Your task to perform on an android device: change keyboard looks Image 0: 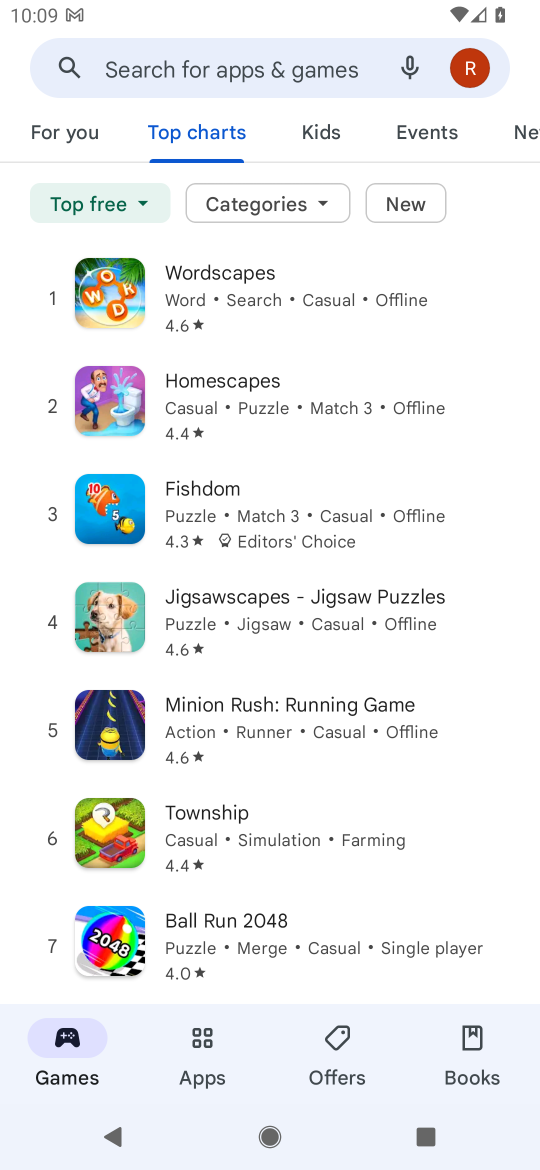
Step 0: press home button
Your task to perform on an android device: change keyboard looks Image 1: 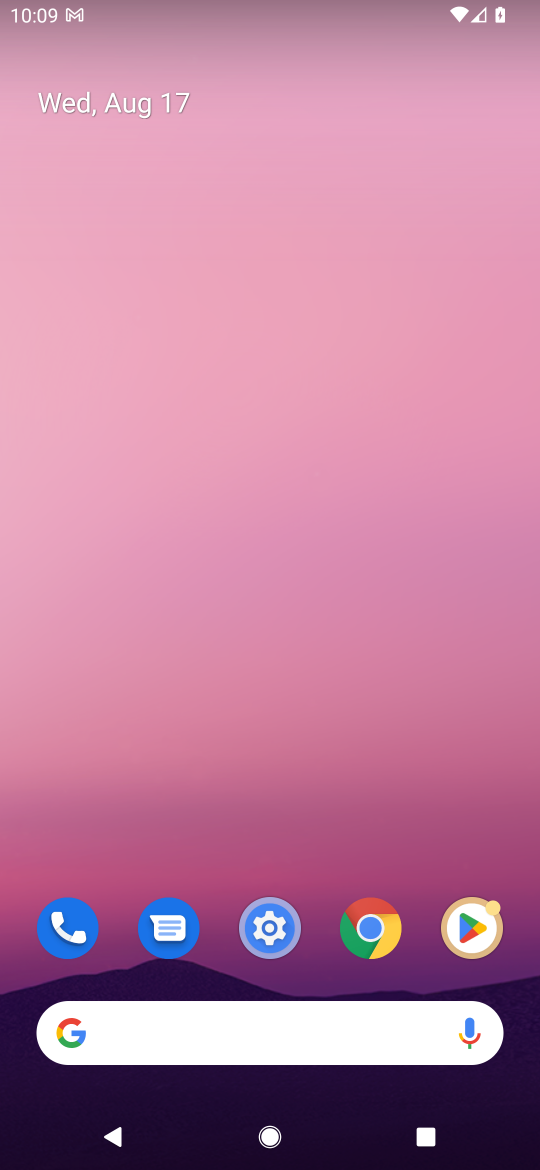
Step 1: drag from (494, 813) to (427, 553)
Your task to perform on an android device: change keyboard looks Image 2: 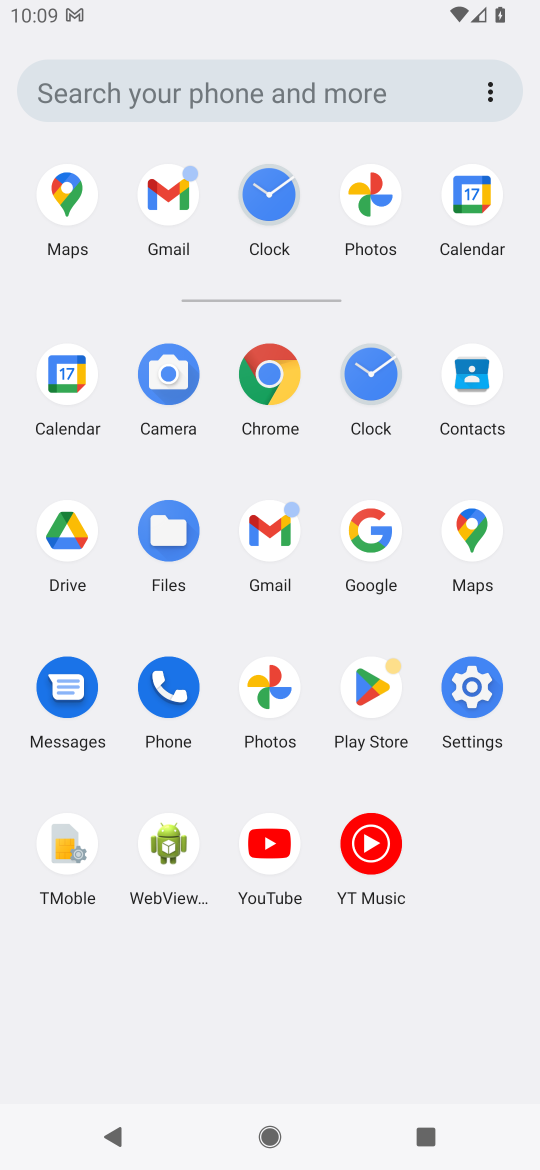
Step 2: click (488, 699)
Your task to perform on an android device: change keyboard looks Image 3: 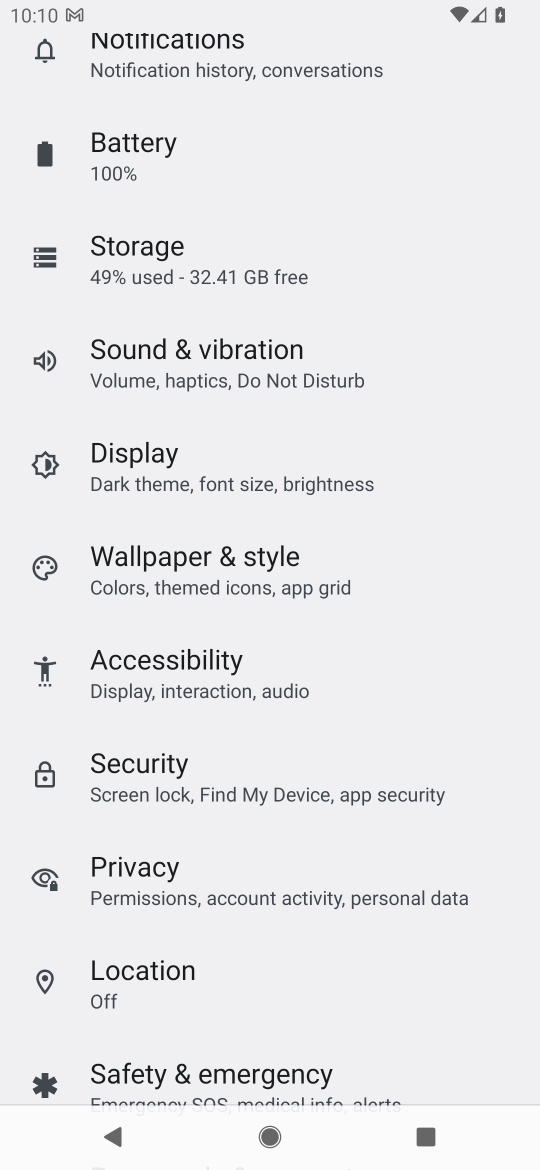
Step 3: drag from (432, 844) to (291, 273)
Your task to perform on an android device: change keyboard looks Image 4: 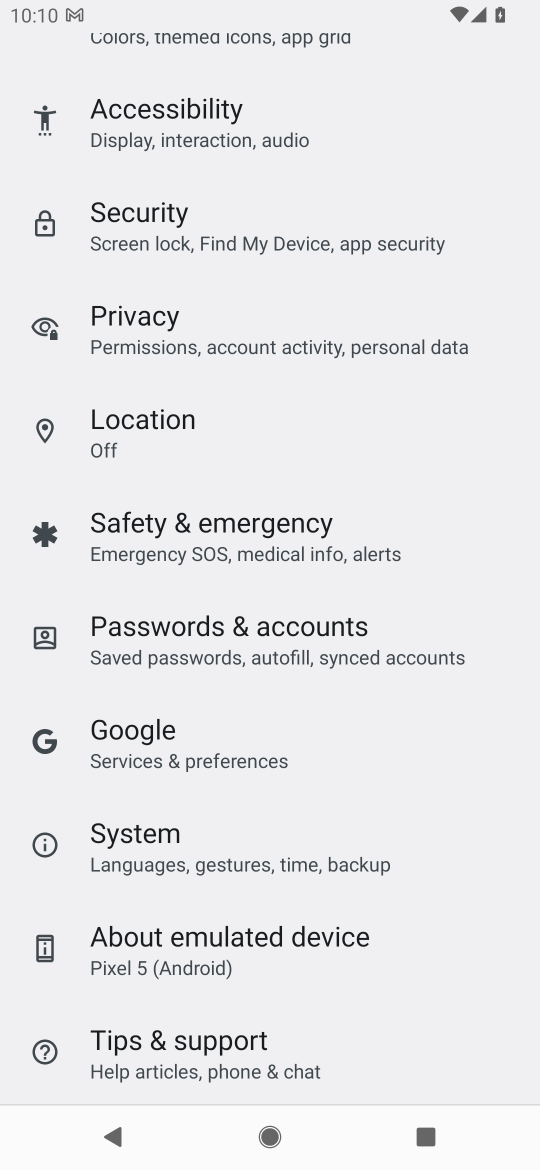
Step 4: drag from (328, 955) to (267, 529)
Your task to perform on an android device: change keyboard looks Image 5: 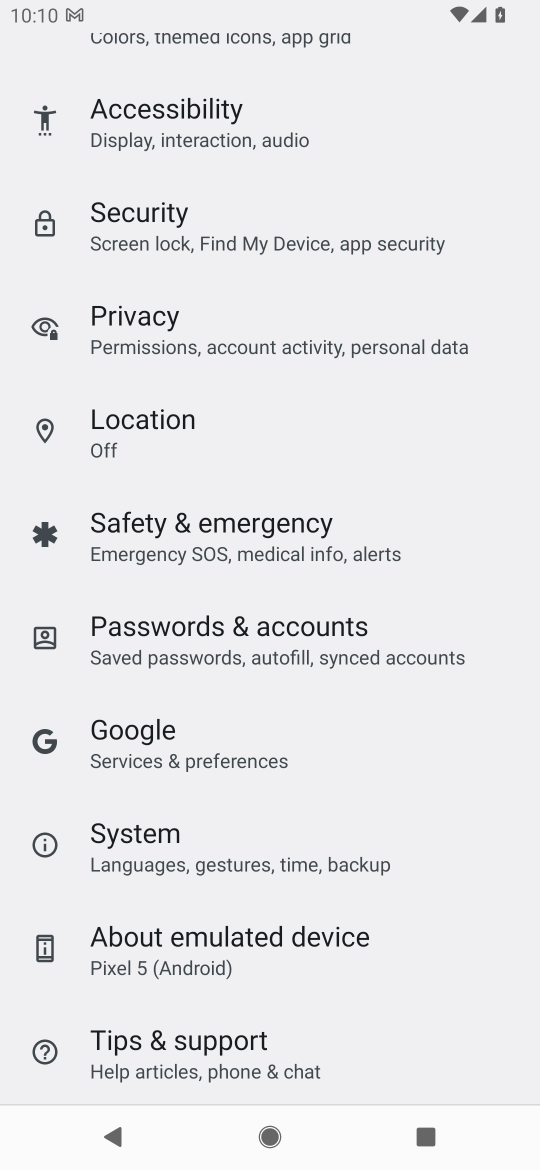
Step 5: click (199, 940)
Your task to perform on an android device: change keyboard looks Image 6: 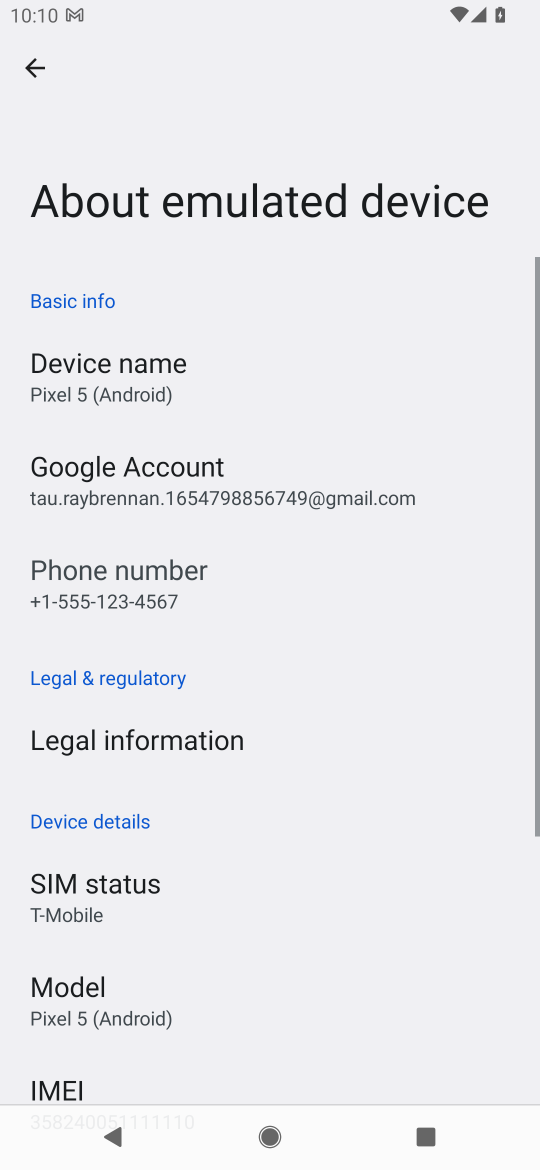
Step 6: click (20, 78)
Your task to perform on an android device: change keyboard looks Image 7: 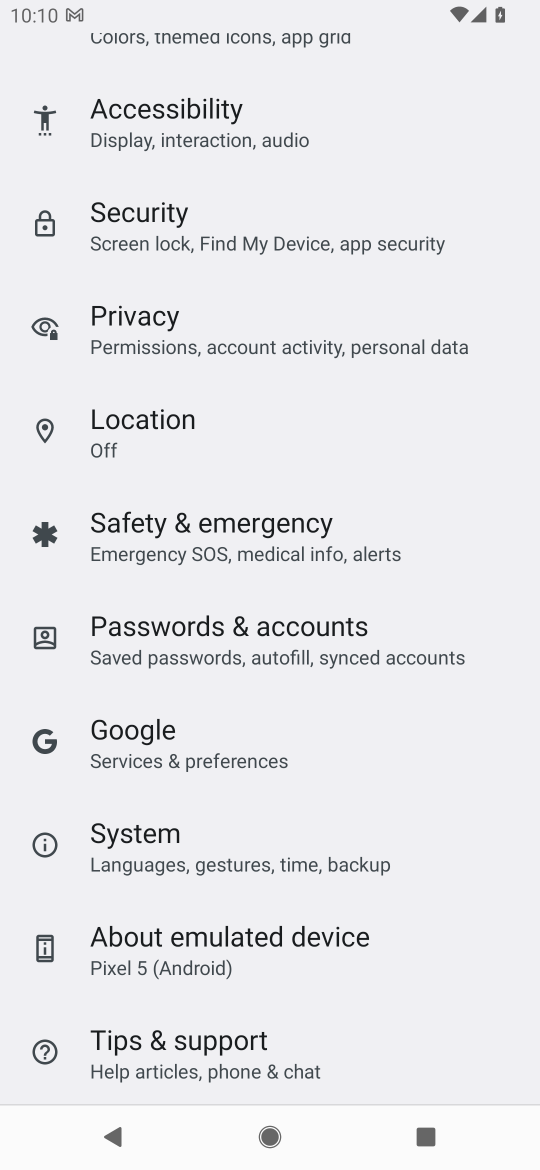
Step 7: click (251, 861)
Your task to perform on an android device: change keyboard looks Image 8: 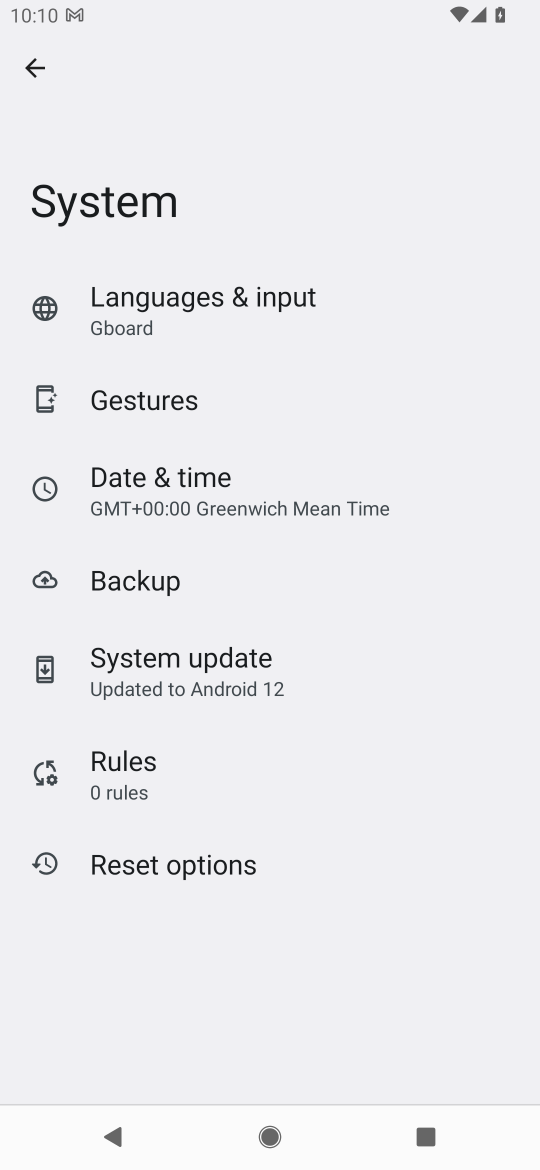
Step 8: click (293, 294)
Your task to perform on an android device: change keyboard looks Image 9: 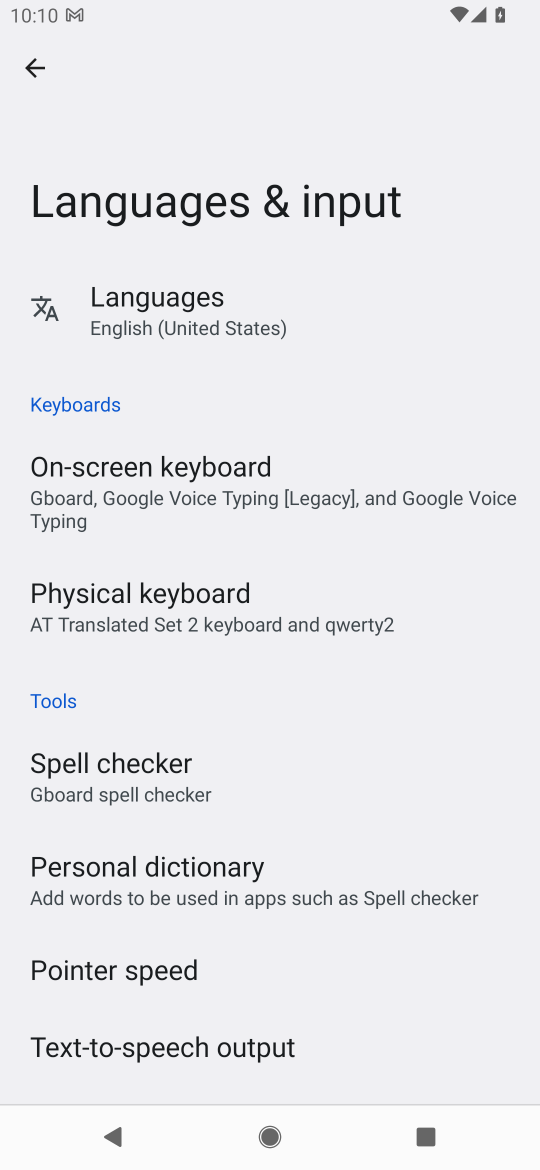
Step 9: click (193, 483)
Your task to perform on an android device: change keyboard looks Image 10: 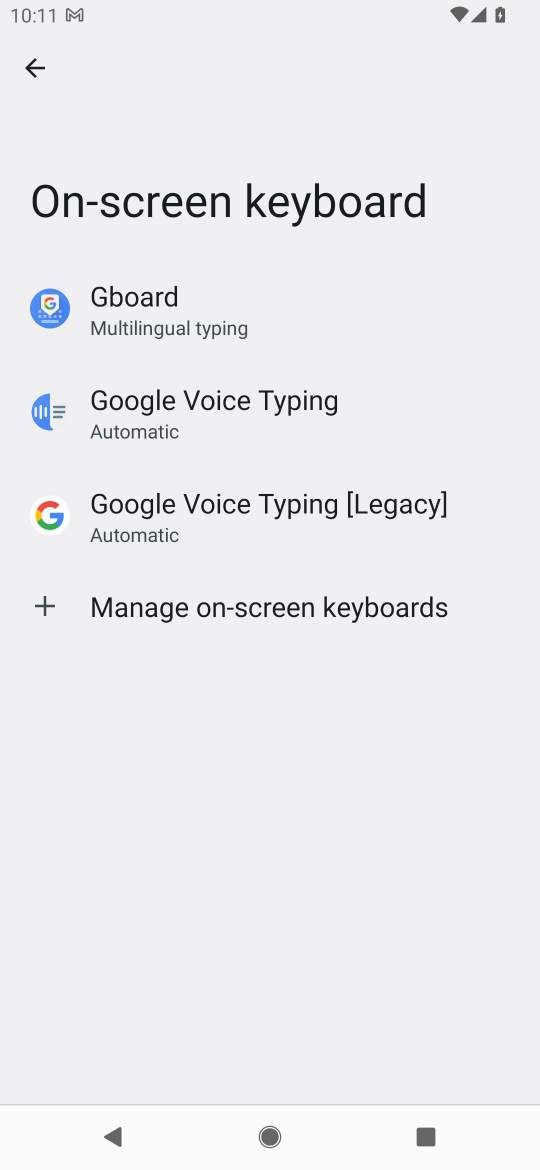
Step 10: click (205, 326)
Your task to perform on an android device: change keyboard looks Image 11: 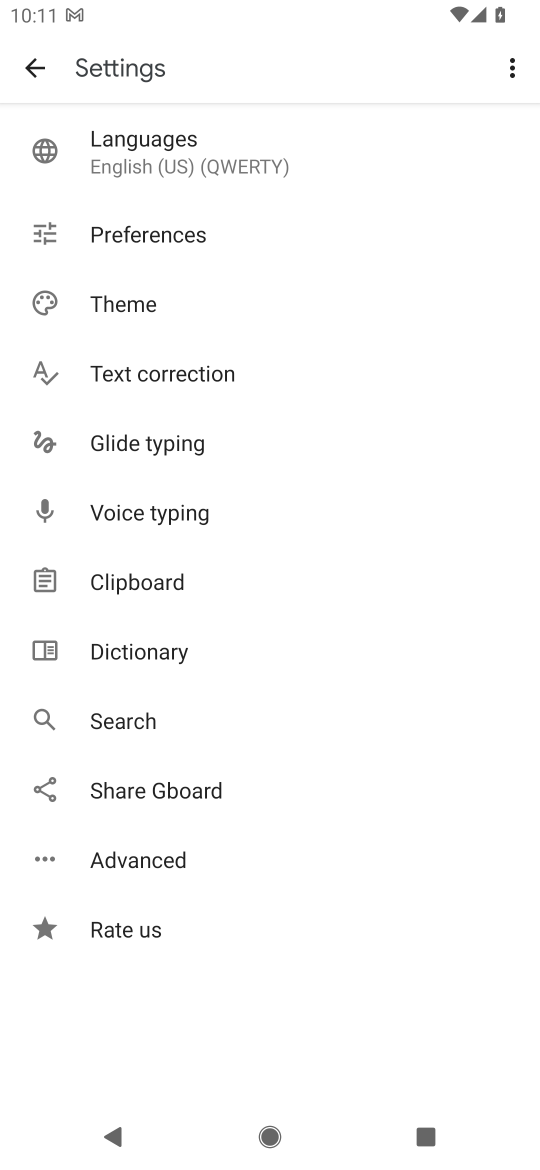
Step 11: click (180, 296)
Your task to perform on an android device: change keyboard looks Image 12: 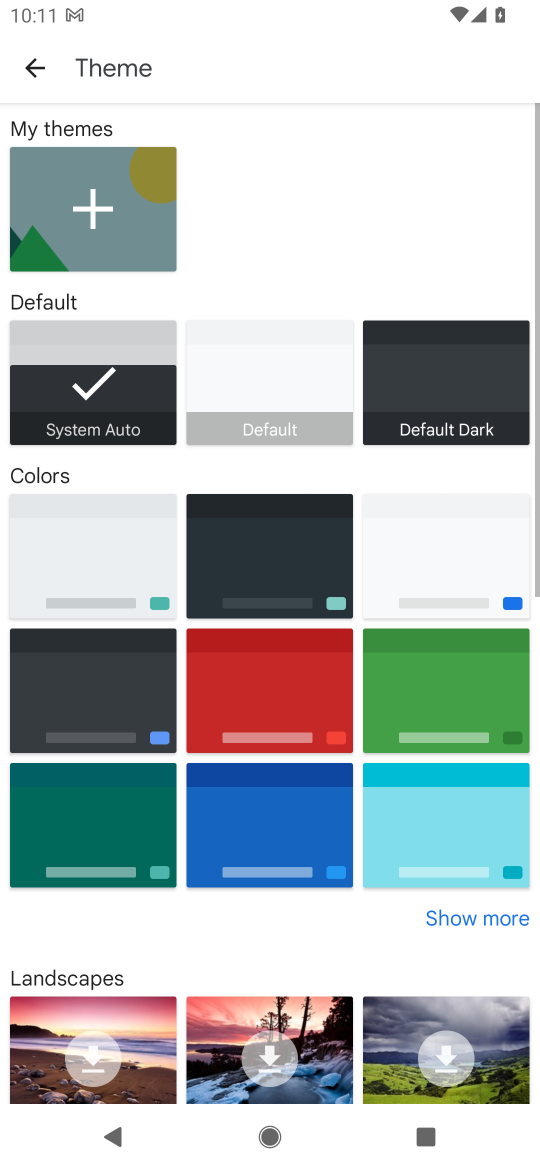
Step 12: click (415, 686)
Your task to perform on an android device: change keyboard looks Image 13: 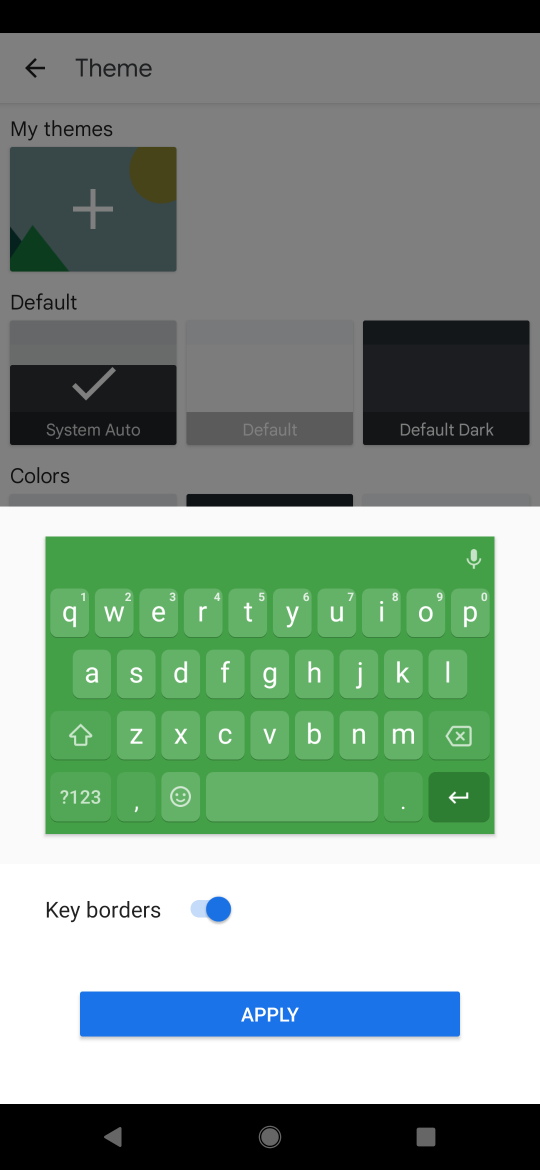
Step 13: click (358, 1018)
Your task to perform on an android device: change keyboard looks Image 14: 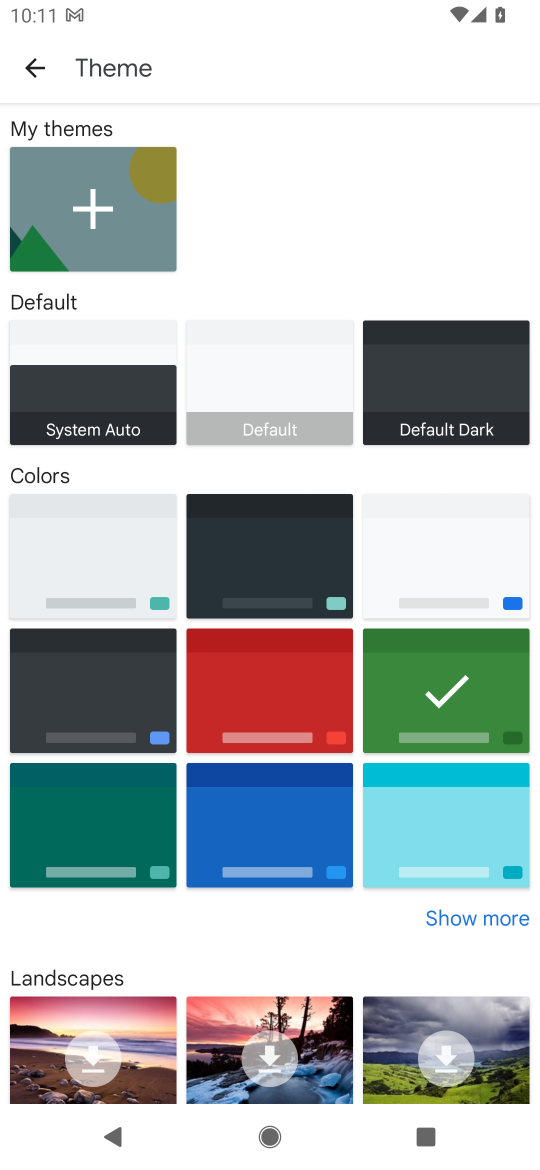
Step 14: task complete